Your task to perform on an android device: turn off location history Image 0: 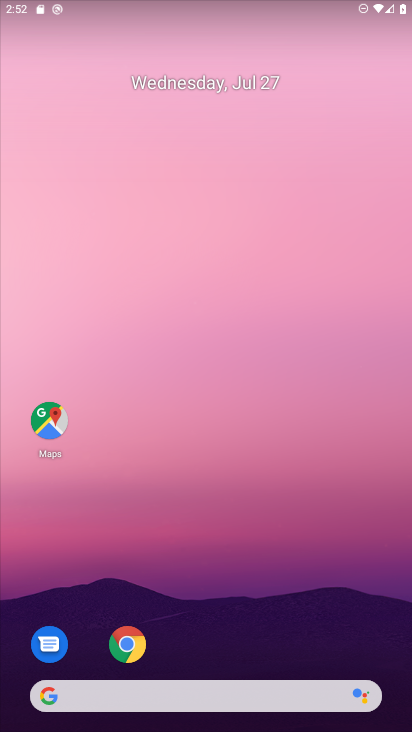
Step 0: drag from (207, 583) to (208, 38)
Your task to perform on an android device: turn off location history Image 1: 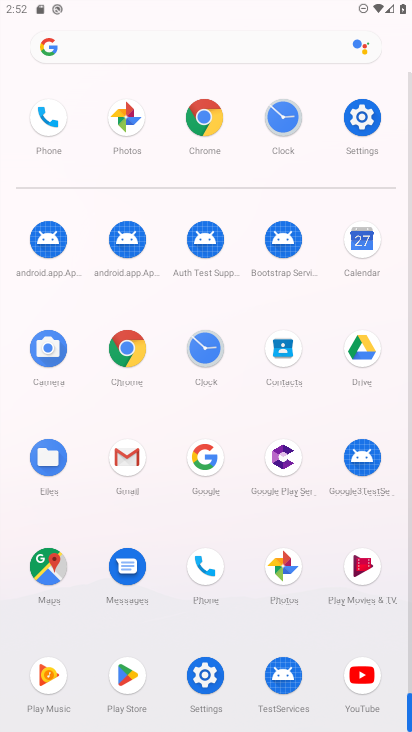
Step 1: click (205, 684)
Your task to perform on an android device: turn off location history Image 2: 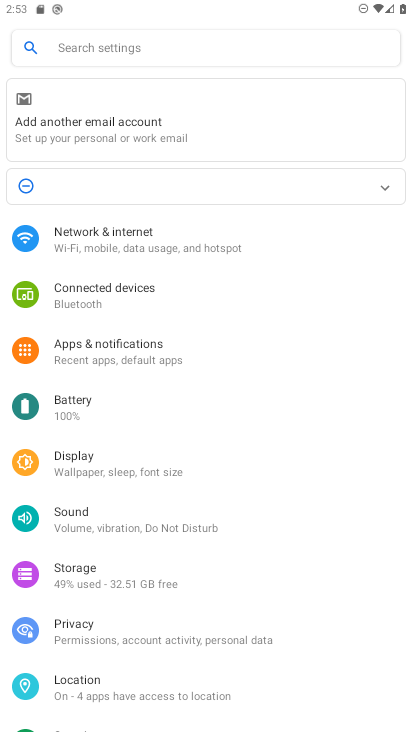
Step 2: click (86, 685)
Your task to perform on an android device: turn off location history Image 3: 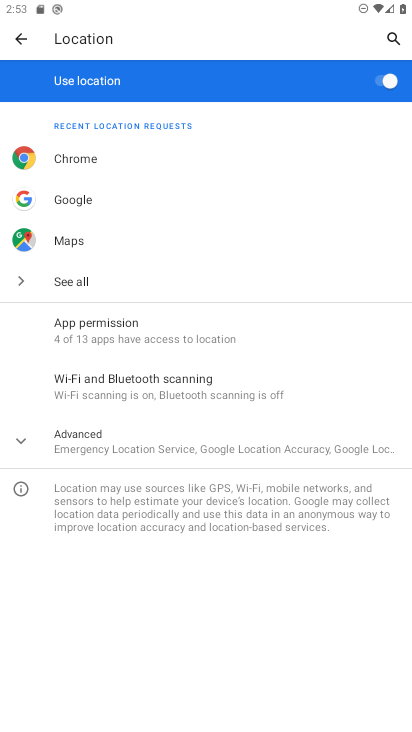
Step 3: click (110, 440)
Your task to perform on an android device: turn off location history Image 4: 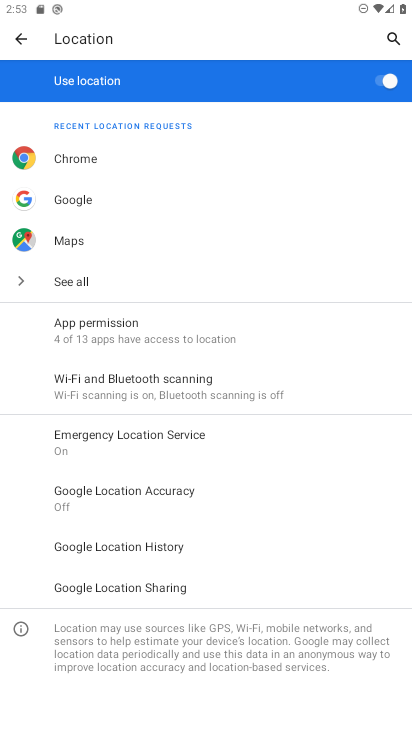
Step 4: click (144, 548)
Your task to perform on an android device: turn off location history Image 5: 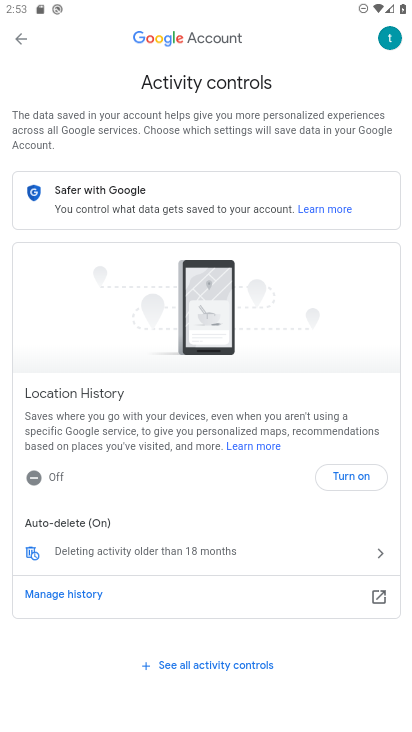
Step 5: task complete